Your task to perform on an android device: change the clock display to show seconds Image 0: 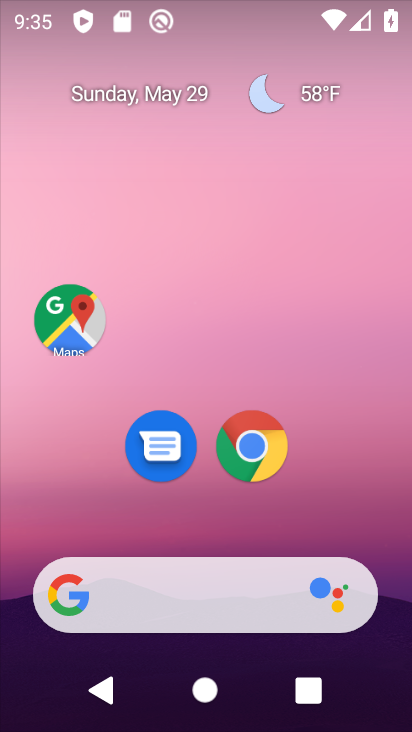
Step 0: drag from (239, 524) to (251, 100)
Your task to perform on an android device: change the clock display to show seconds Image 1: 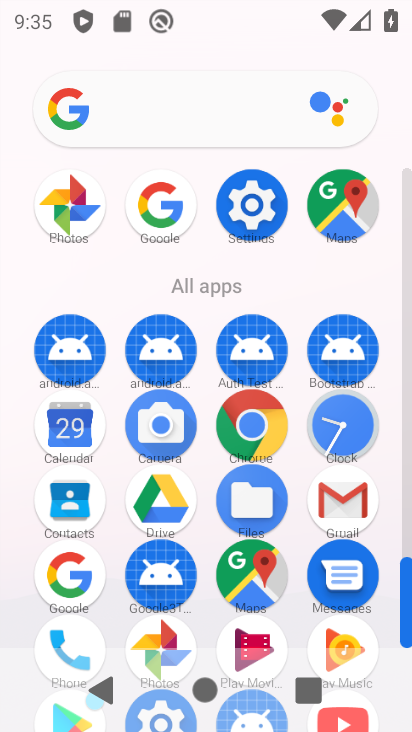
Step 1: click (331, 427)
Your task to perform on an android device: change the clock display to show seconds Image 2: 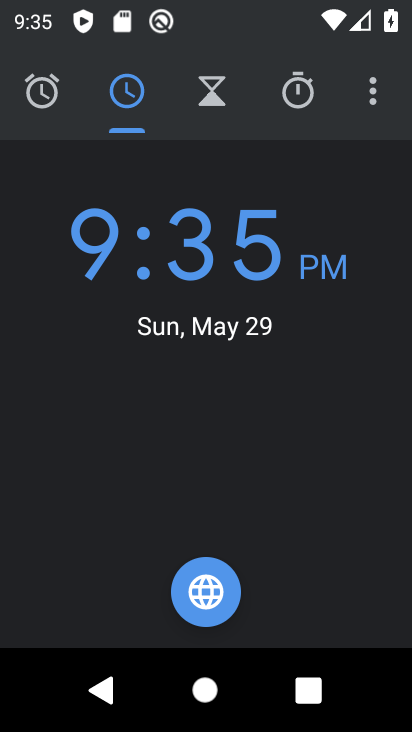
Step 2: click (374, 93)
Your task to perform on an android device: change the clock display to show seconds Image 3: 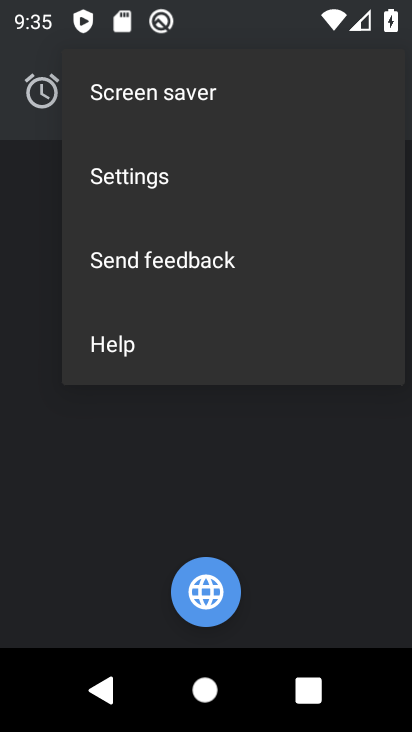
Step 3: click (111, 174)
Your task to perform on an android device: change the clock display to show seconds Image 4: 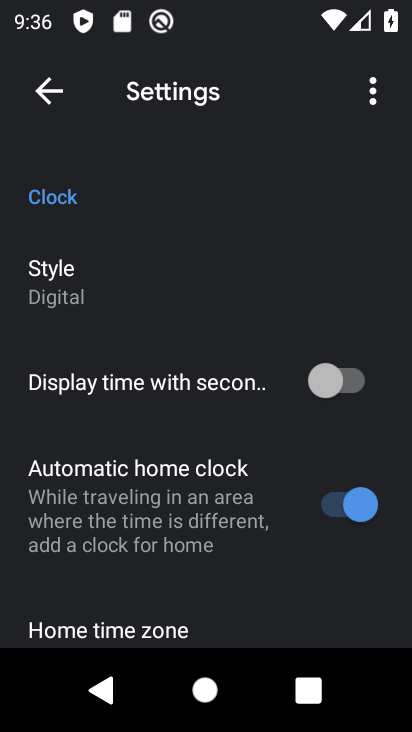
Step 4: click (353, 387)
Your task to perform on an android device: change the clock display to show seconds Image 5: 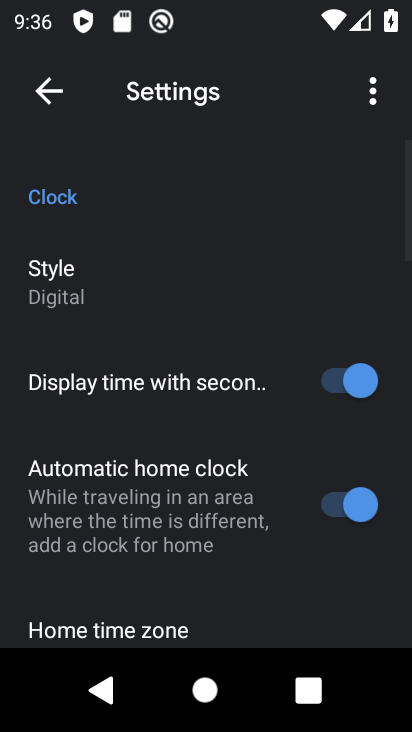
Step 5: task complete